Your task to perform on an android device: turn off data saver in the chrome app Image 0: 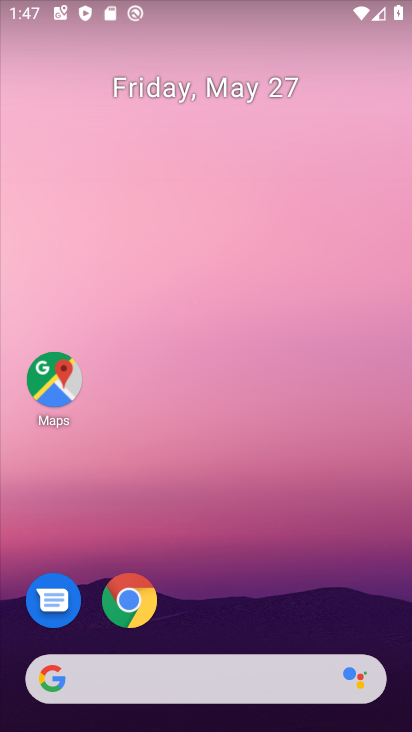
Step 0: click (130, 599)
Your task to perform on an android device: turn off data saver in the chrome app Image 1: 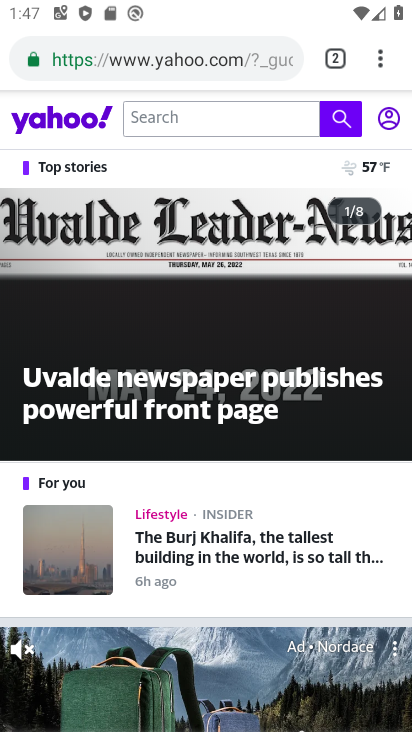
Step 1: click (379, 63)
Your task to perform on an android device: turn off data saver in the chrome app Image 2: 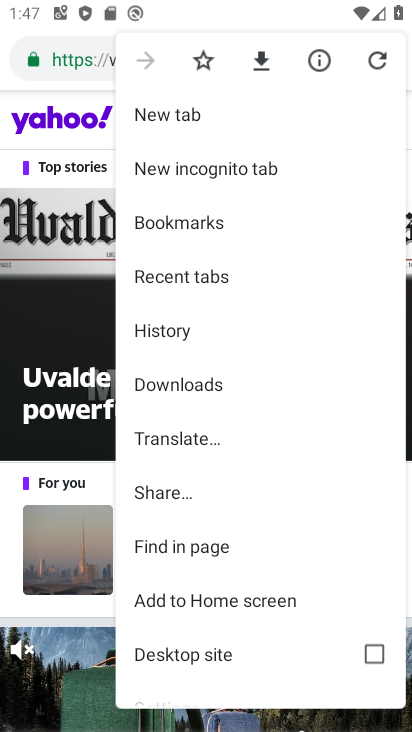
Step 2: drag from (179, 616) to (180, 262)
Your task to perform on an android device: turn off data saver in the chrome app Image 3: 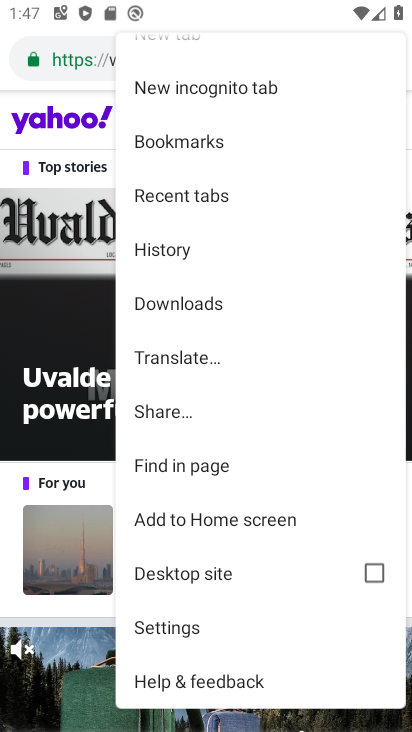
Step 3: click (166, 624)
Your task to perform on an android device: turn off data saver in the chrome app Image 4: 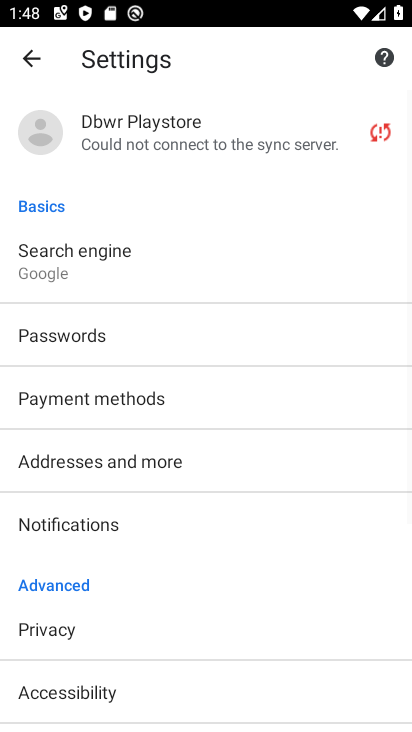
Step 4: drag from (120, 687) to (120, 249)
Your task to perform on an android device: turn off data saver in the chrome app Image 5: 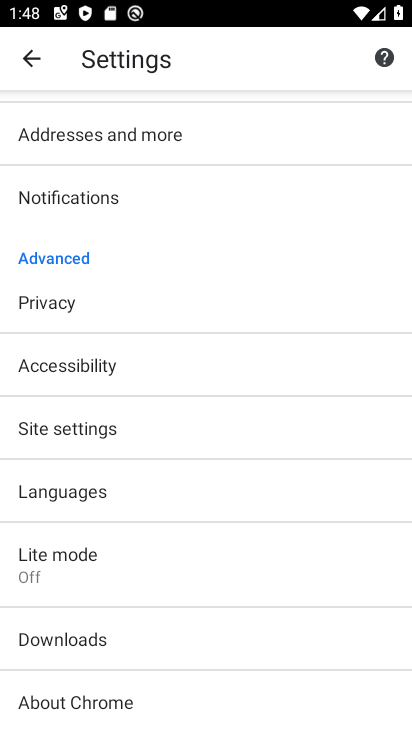
Step 5: click (61, 561)
Your task to perform on an android device: turn off data saver in the chrome app Image 6: 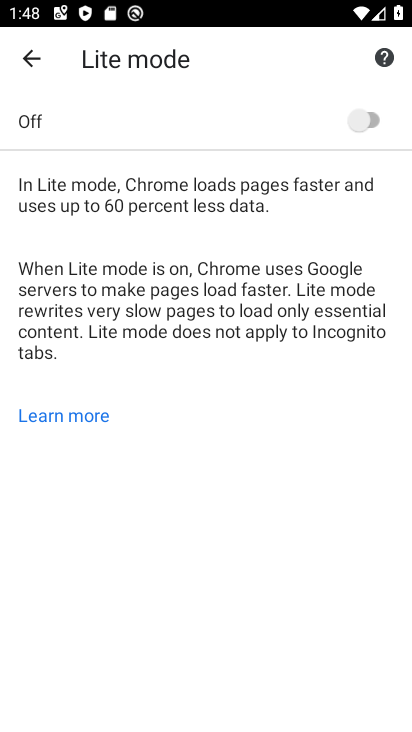
Step 6: task complete